Your task to perform on an android device: show emergency info Image 0: 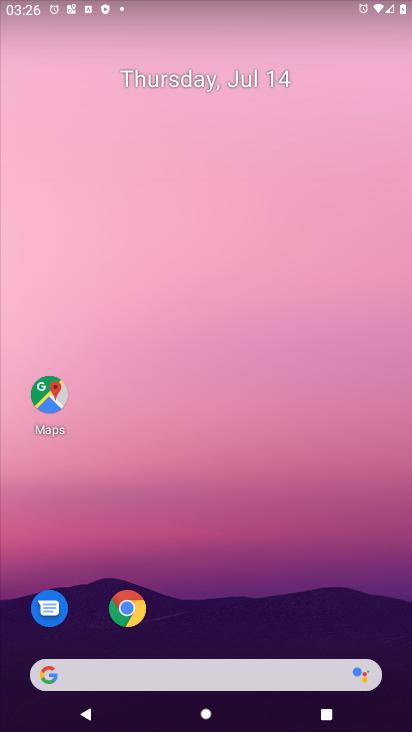
Step 0: drag from (364, 647) to (299, 11)
Your task to perform on an android device: show emergency info Image 1: 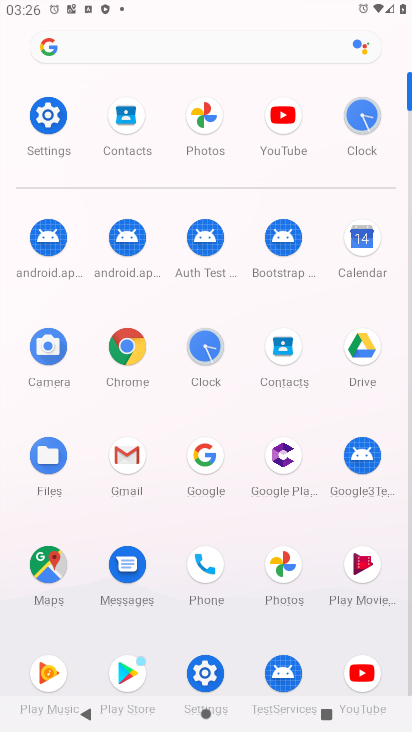
Step 1: click (203, 671)
Your task to perform on an android device: show emergency info Image 2: 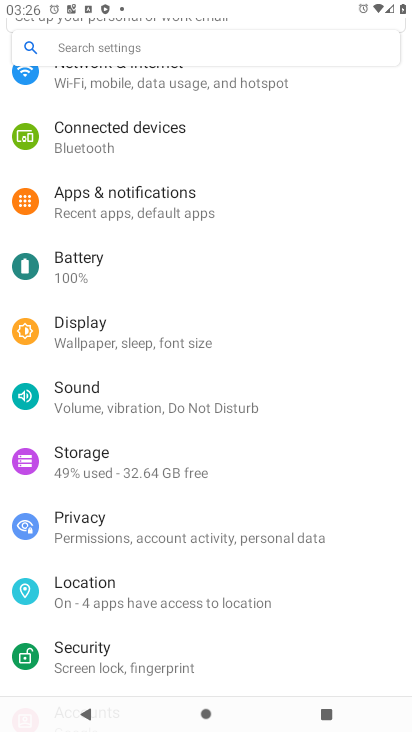
Step 2: drag from (325, 644) to (326, 67)
Your task to perform on an android device: show emergency info Image 3: 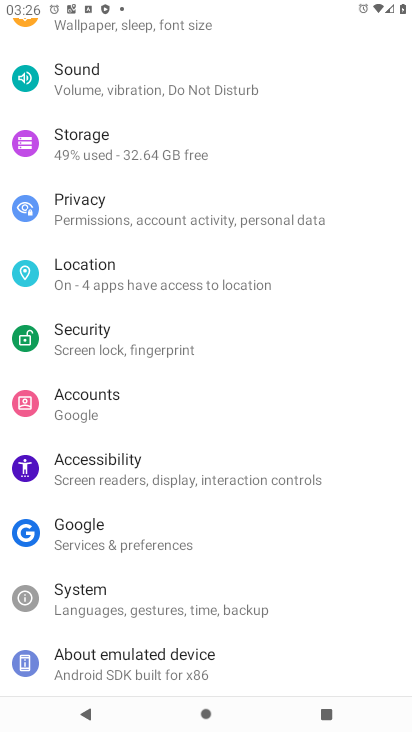
Step 3: click (123, 667)
Your task to perform on an android device: show emergency info Image 4: 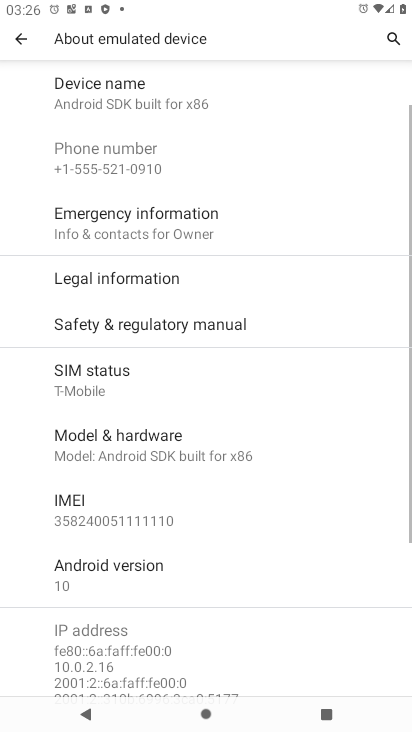
Step 4: click (109, 226)
Your task to perform on an android device: show emergency info Image 5: 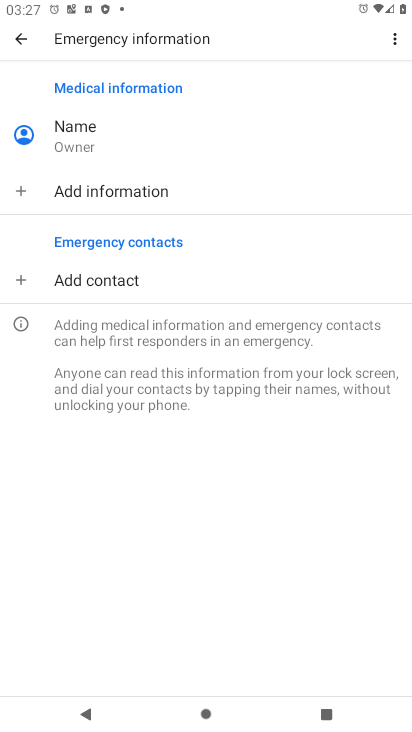
Step 5: task complete